Your task to perform on an android device: Show me recent news Image 0: 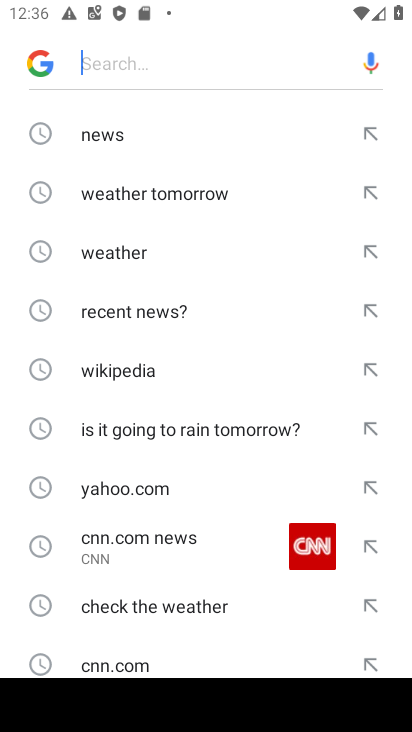
Step 0: press home button
Your task to perform on an android device: Show me recent news Image 1: 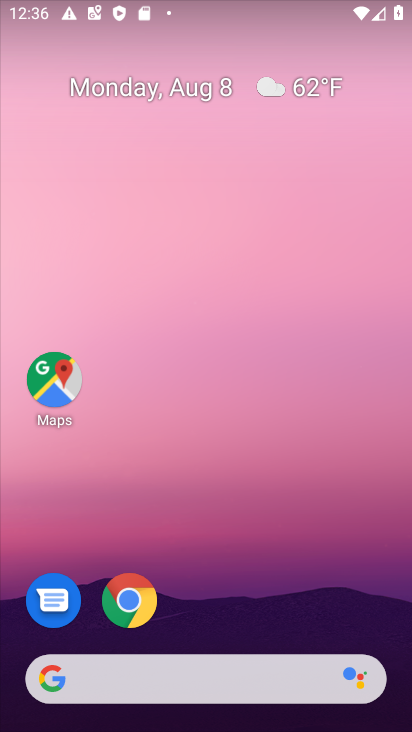
Step 1: drag from (233, 593) to (237, 213)
Your task to perform on an android device: Show me recent news Image 2: 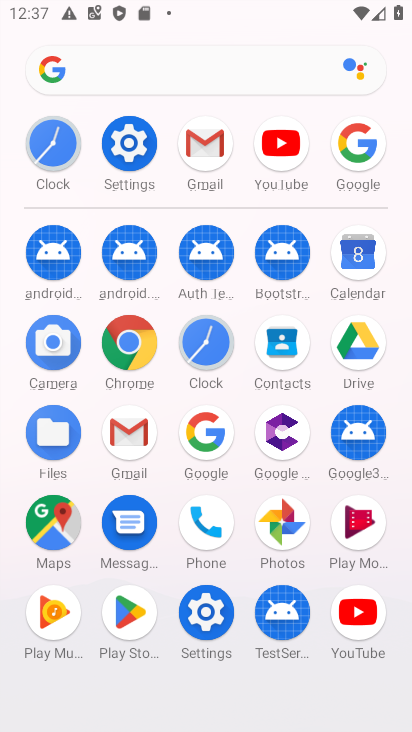
Step 2: click (219, 438)
Your task to perform on an android device: Show me recent news Image 3: 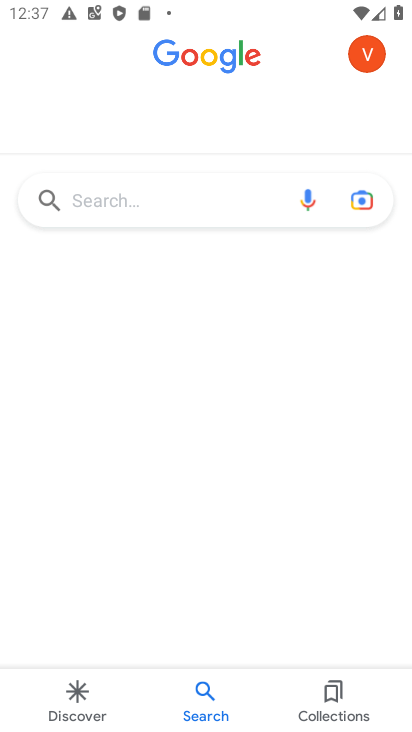
Step 3: click (169, 202)
Your task to perform on an android device: Show me recent news Image 4: 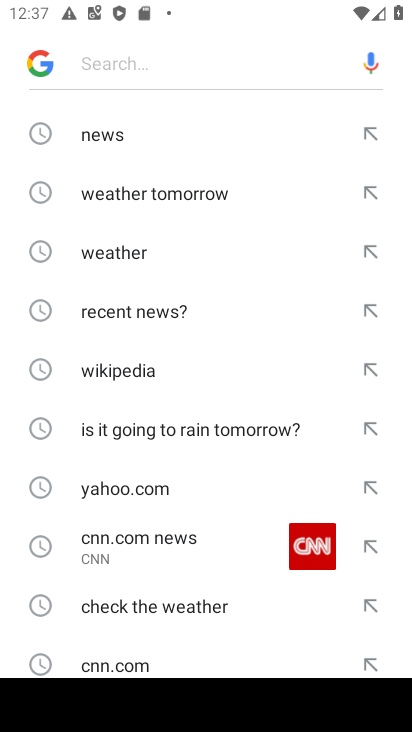
Step 4: click (107, 138)
Your task to perform on an android device: Show me recent news Image 5: 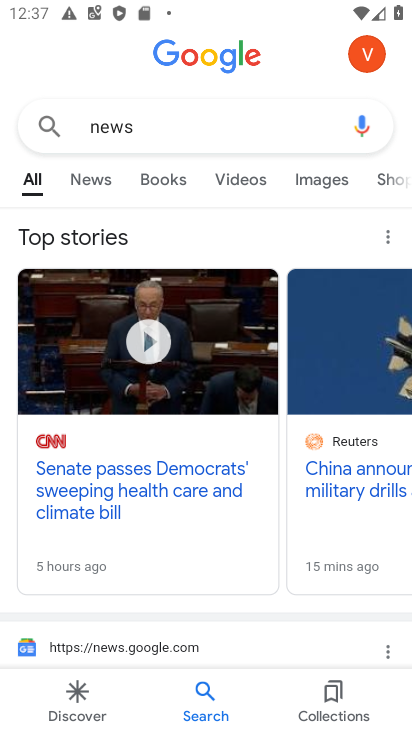
Step 5: click (87, 181)
Your task to perform on an android device: Show me recent news Image 6: 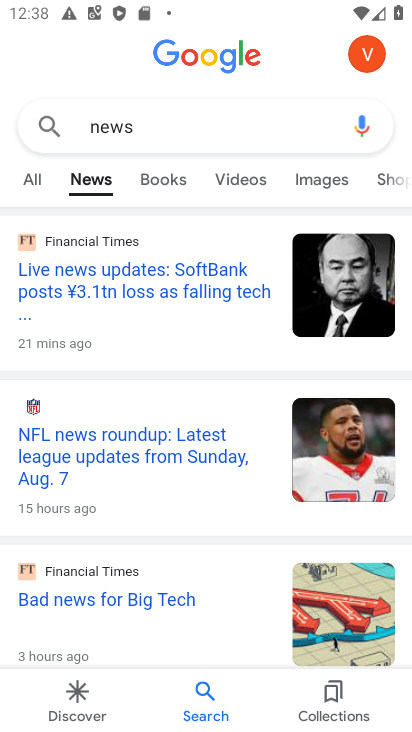
Step 6: task complete